Your task to perform on an android device: Go to internet settings Image 0: 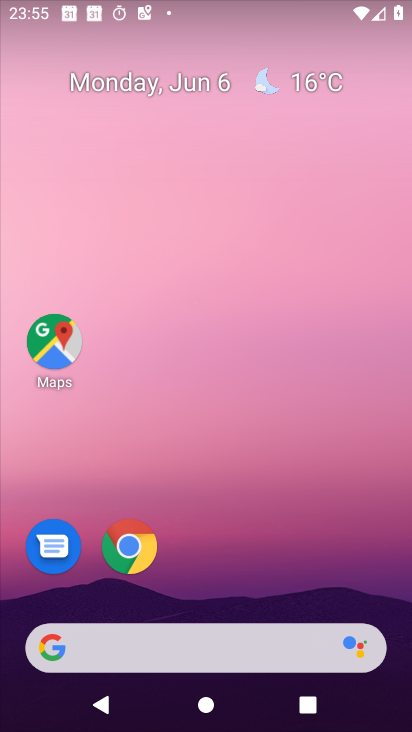
Step 0: drag from (205, 603) to (227, 296)
Your task to perform on an android device: Go to internet settings Image 1: 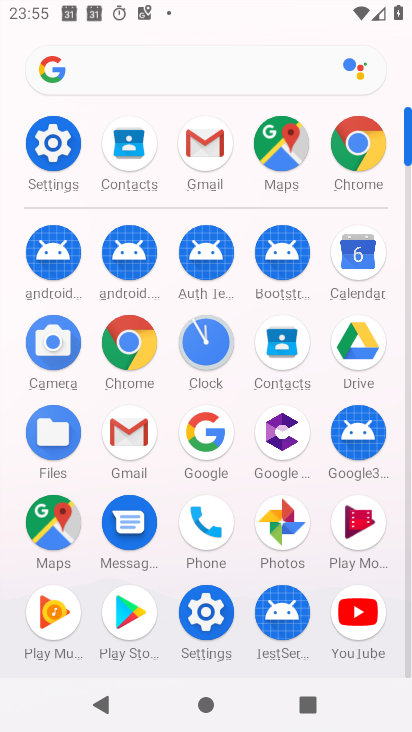
Step 1: click (44, 176)
Your task to perform on an android device: Go to internet settings Image 2: 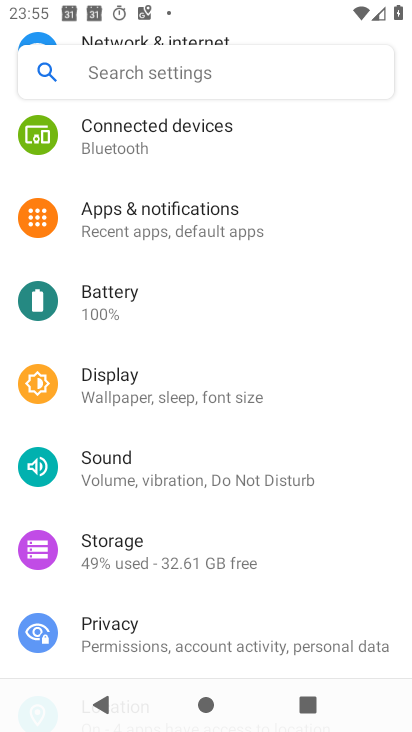
Step 2: drag from (215, 213) to (225, 478)
Your task to perform on an android device: Go to internet settings Image 3: 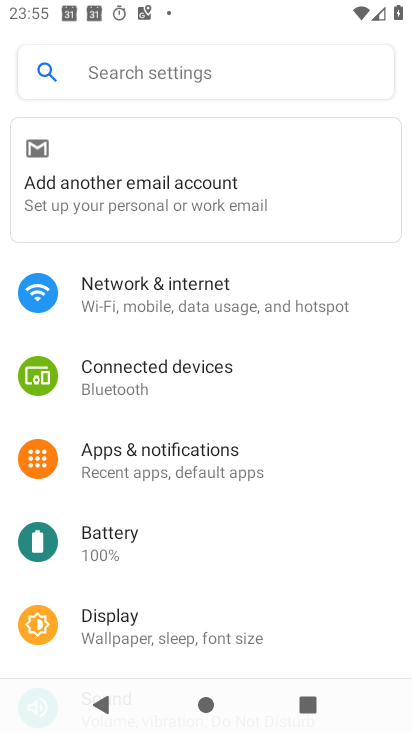
Step 3: click (177, 297)
Your task to perform on an android device: Go to internet settings Image 4: 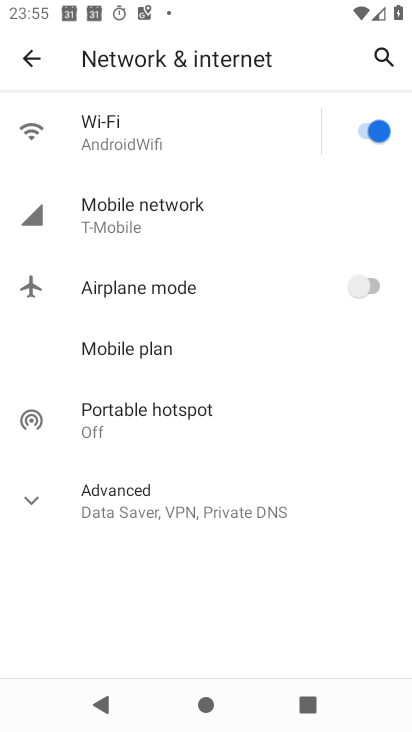
Step 4: task complete